Your task to perform on an android device: Clear the cart on target. Add "bose quietcomfort 35" to the cart on target, then select checkout. Image 0: 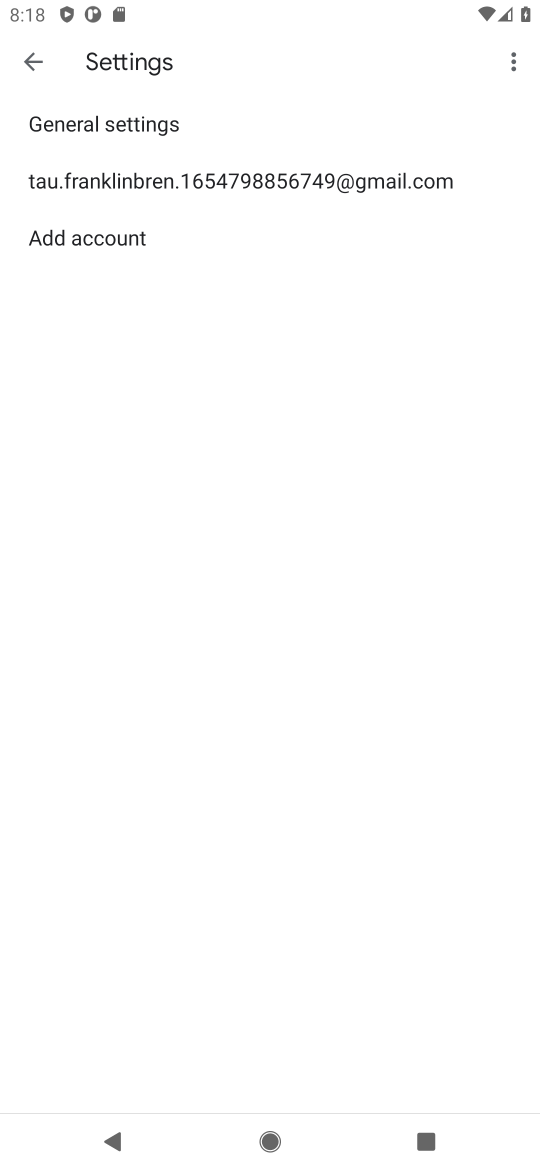
Step 0: press home button
Your task to perform on an android device: Clear the cart on target. Add "bose quietcomfort 35" to the cart on target, then select checkout. Image 1: 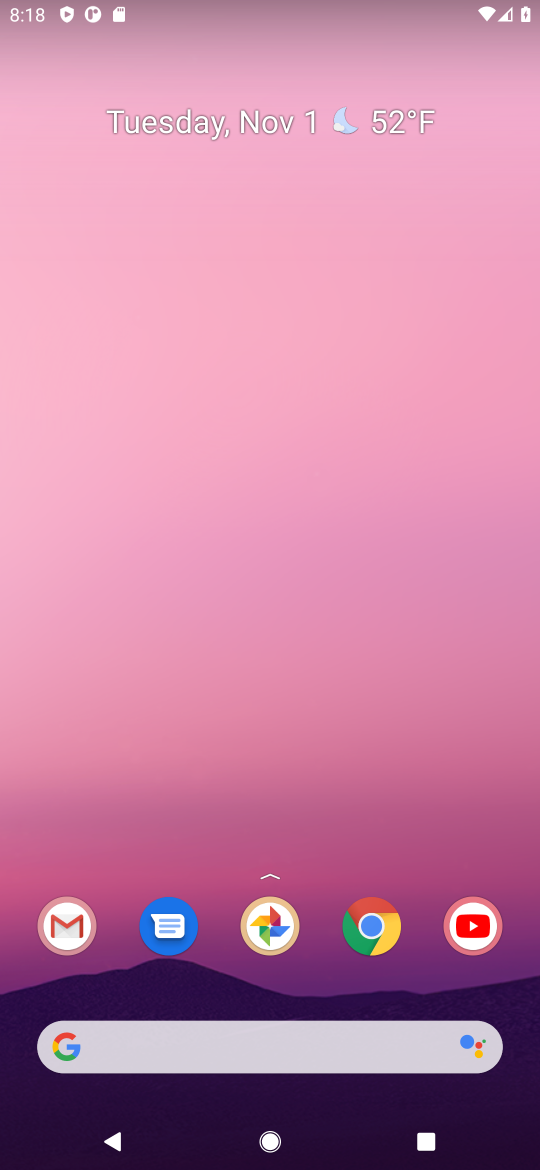
Step 1: click (377, 948)
Your task to perform on an android device: Clear the cart on target. Add "bose quietcomfort 35" to the cart on target, then select checkout. Image 2: 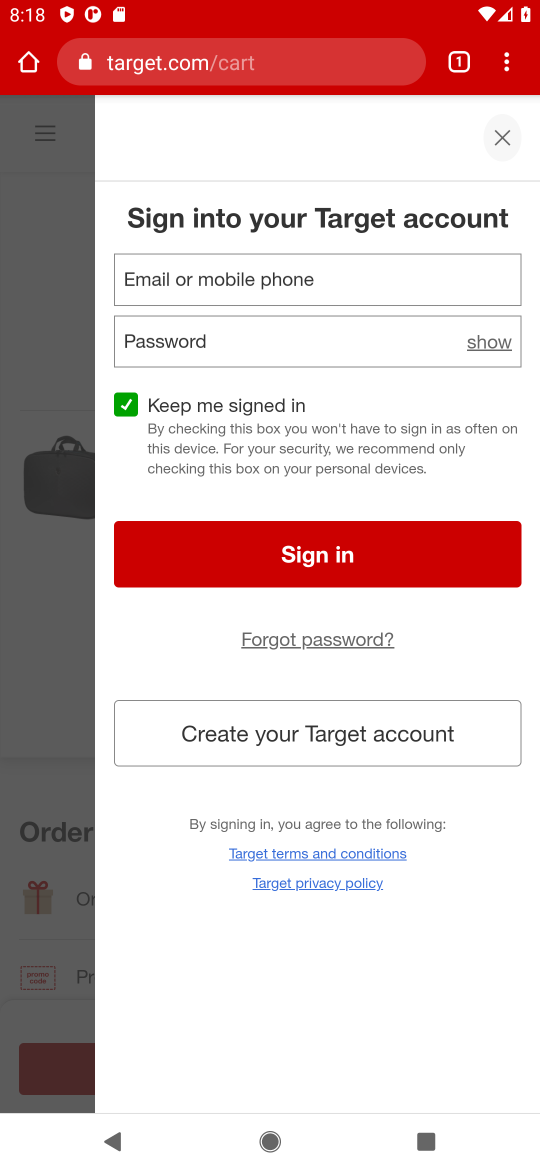
Step 2: click (107, 57)
Your task to perform on an android device: Clear the cart on target. Add "bose quietcomfort 35" to the cart on target, then select checkout. Image 3: 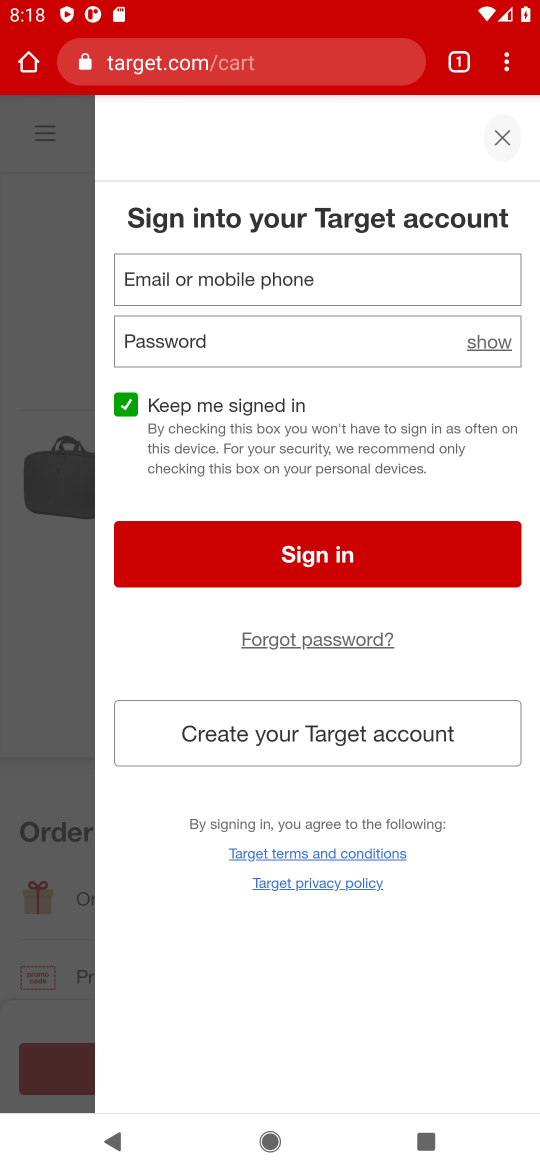
Step 3: click (496, 133)
Your task to perform on an android device: Clear the cart on target. Add "bose quietcomfort 35" to the cart on target, then select checkout. Image 4: 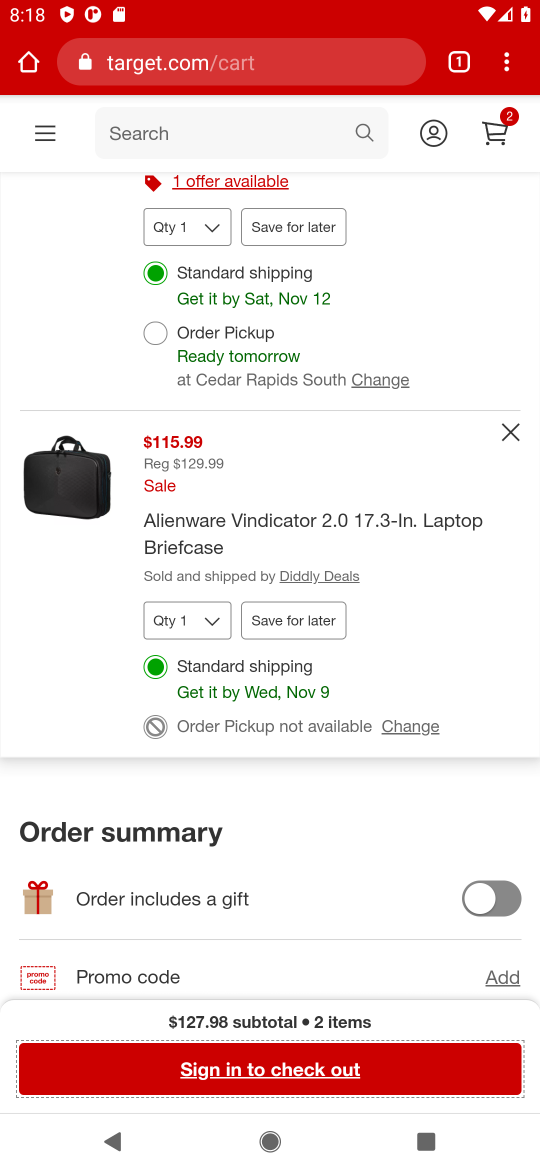
Step 4: click (182, 64)
Your task to perform on an android device: Clear the cart on target. Add "bose quietcomfort 35" to the cart on target, then select checkout. Image 5: 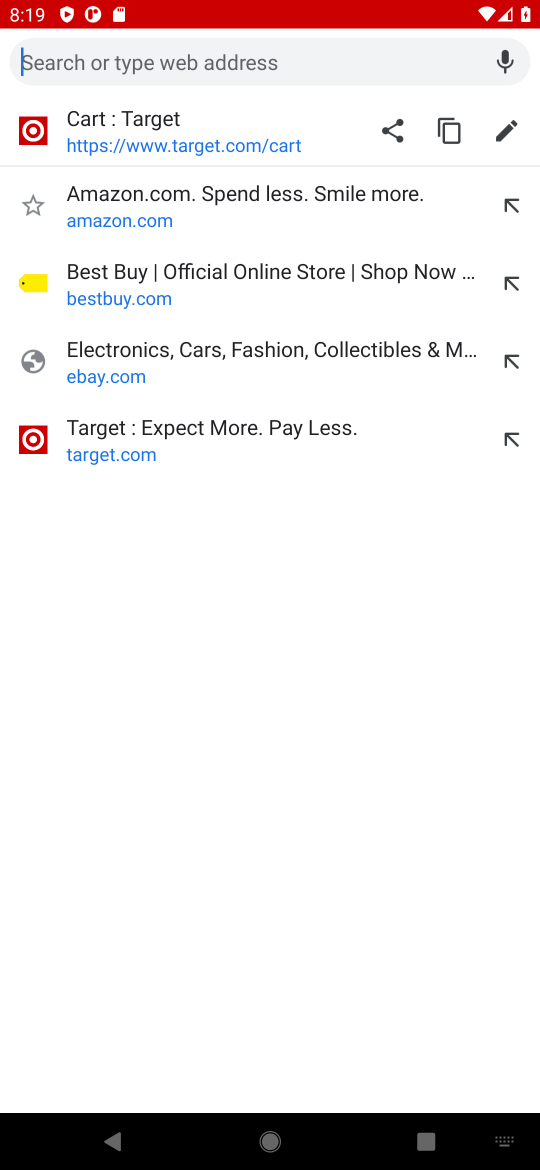
Step 5: click (139, 435)
Your task to perform on an android device: Clear the cart on target. Add "bose quietcomfort 35" to the cart on target, then select checkout. Image 6: 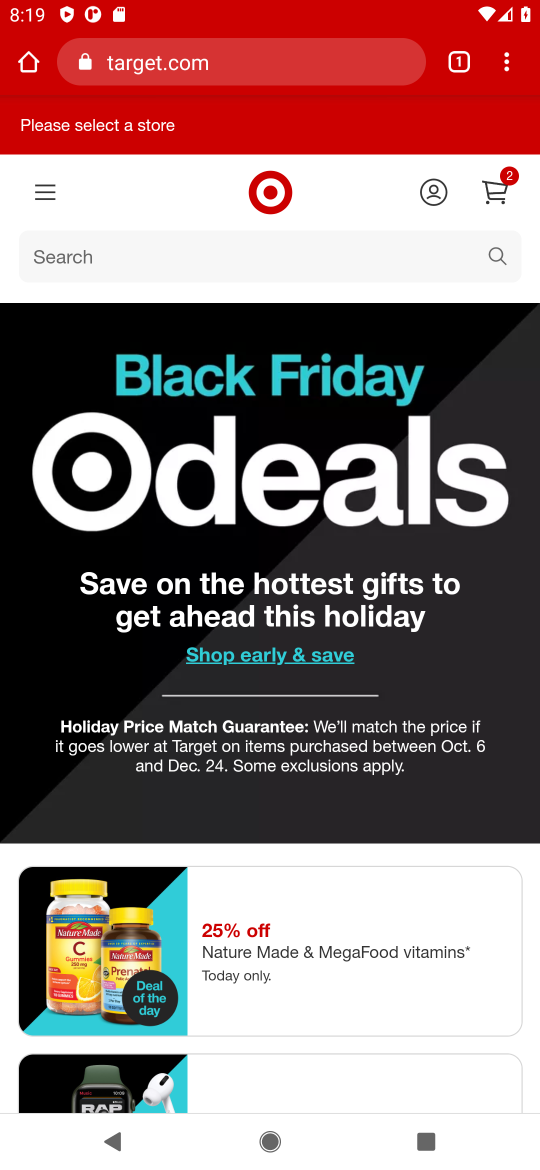
Step 6: click (170, 268)
Your task to perform on an android device: Clear the cart on target. Add "bose quietcomfort 35" to the cart on target, then select checkout. Image 7: 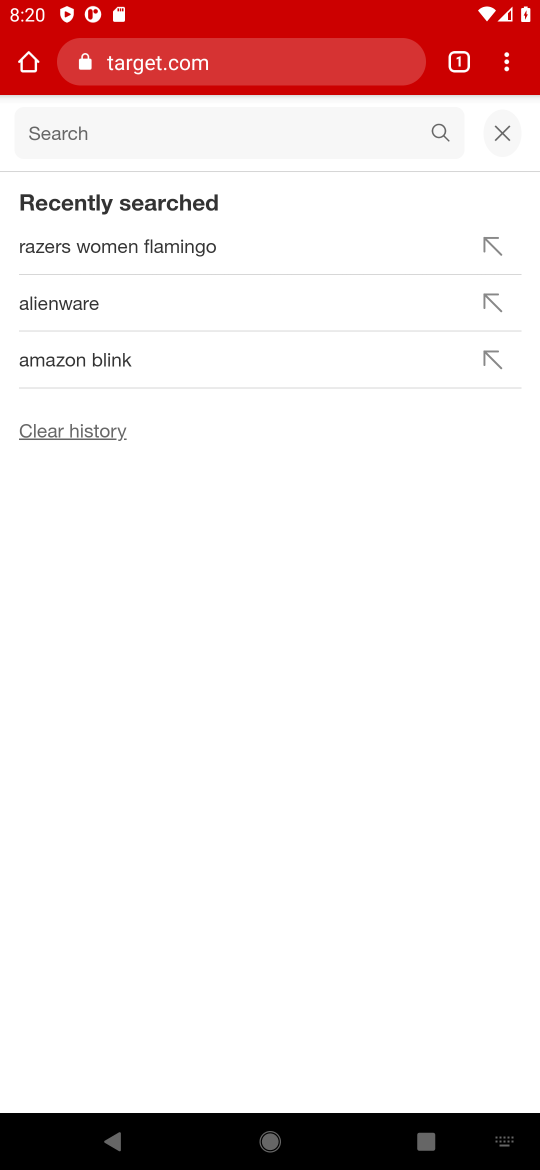
Step 7: type "bose equetcomfort 35"
Your task to perform on an android device: Clear the cart on target. Add "bose quietcomfort 35" to the cart on target, then select checkout. Image 8: 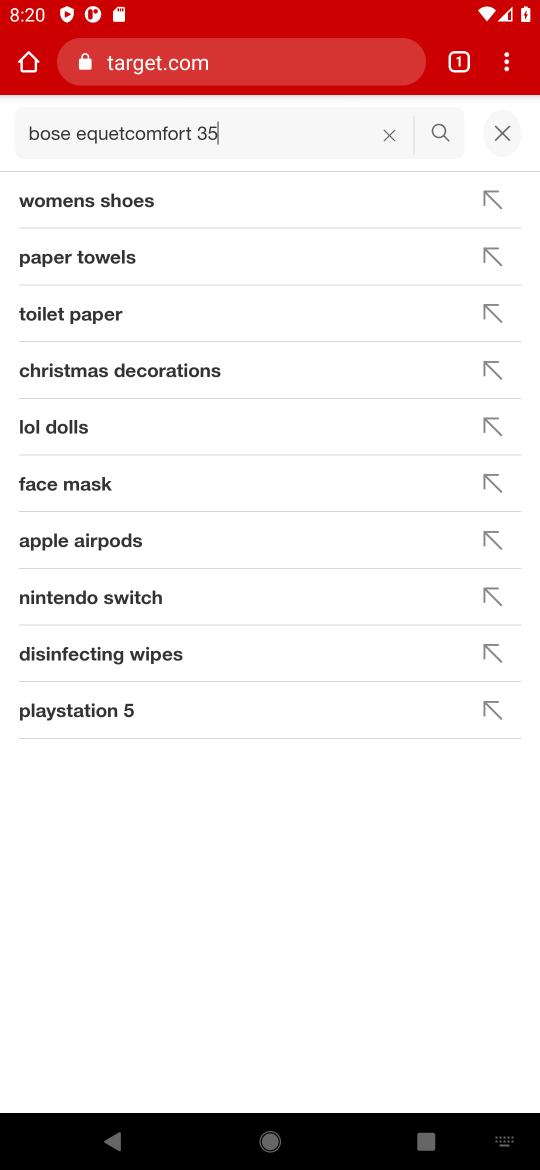
Step 8: type ""
Your task to perform on an android device: Clear the cart on target. Add "bose quietcomfort 35" to the cart on target, then select checkout. Image 9: 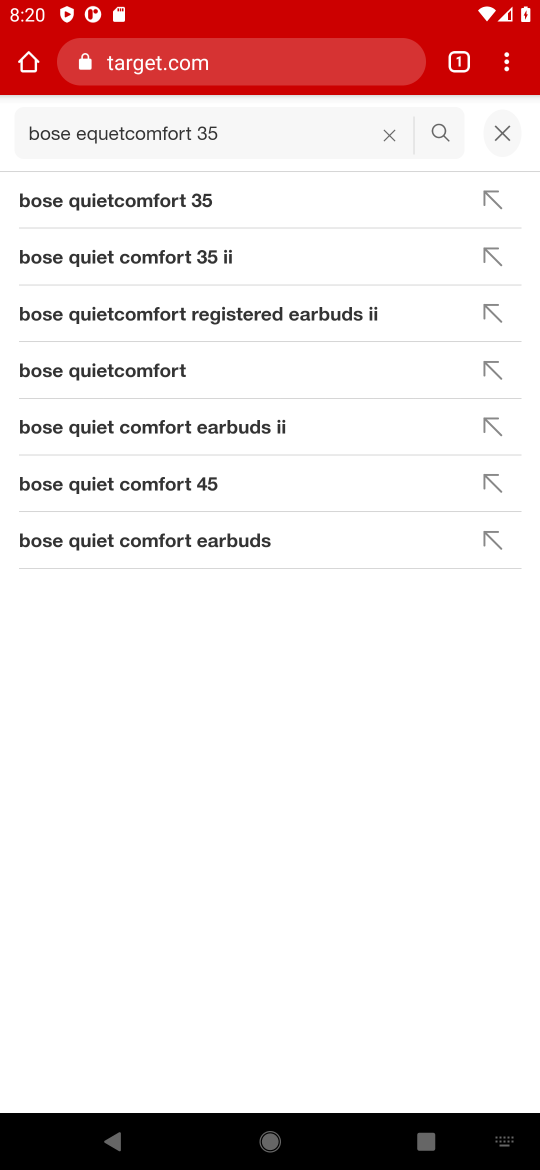
Step 9: click (105, 198)
Your task to perform on an android device: Clear the cart on target. Add "bose quietcomfort 35" to the cart on target, then select checkout. Image 10: 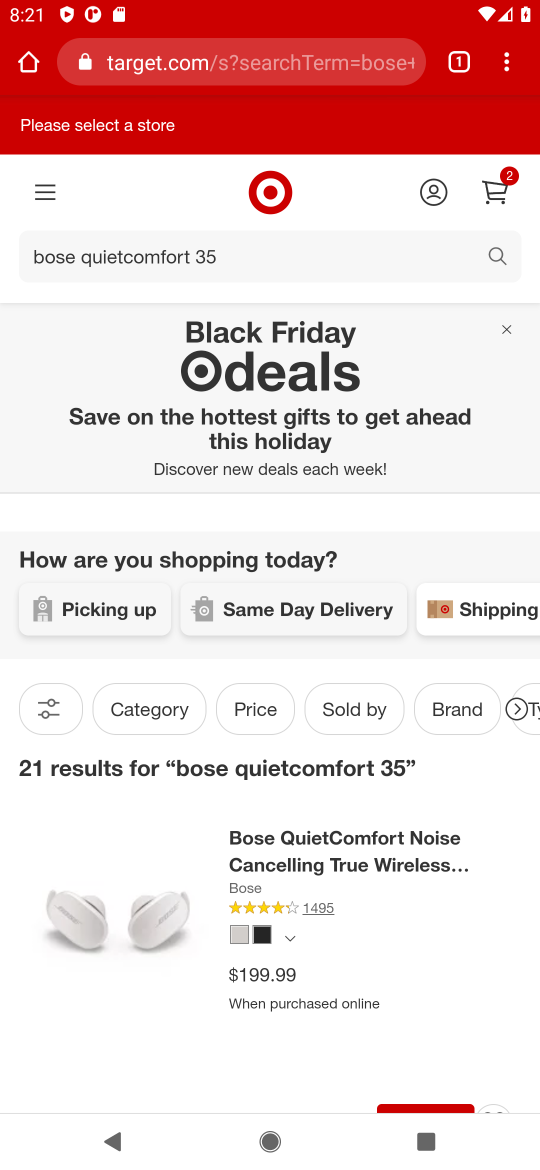
Step 10: click (502, 256)
Your task to perform on an android device: Clear the cart on target. Add "bose quietcomfort 35" to the cart on target, then select checkout. Image 11: 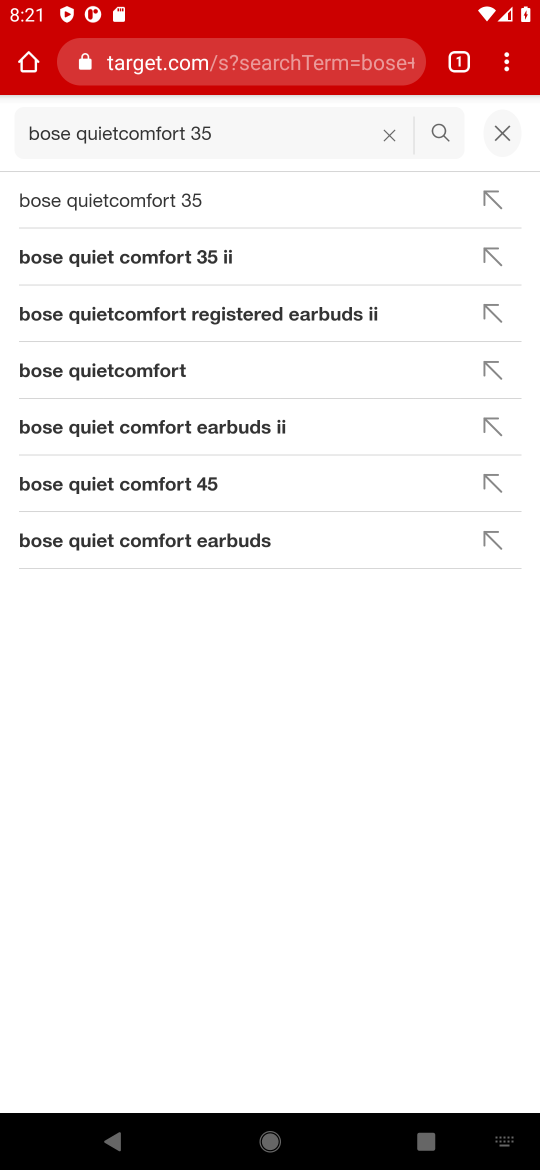
Step 11: click (129, 263)
Your task to perform on an android device: Clear the cart on target. Add "bose quietcomfort 35" to the cart on target, then select checkout. Image 12: 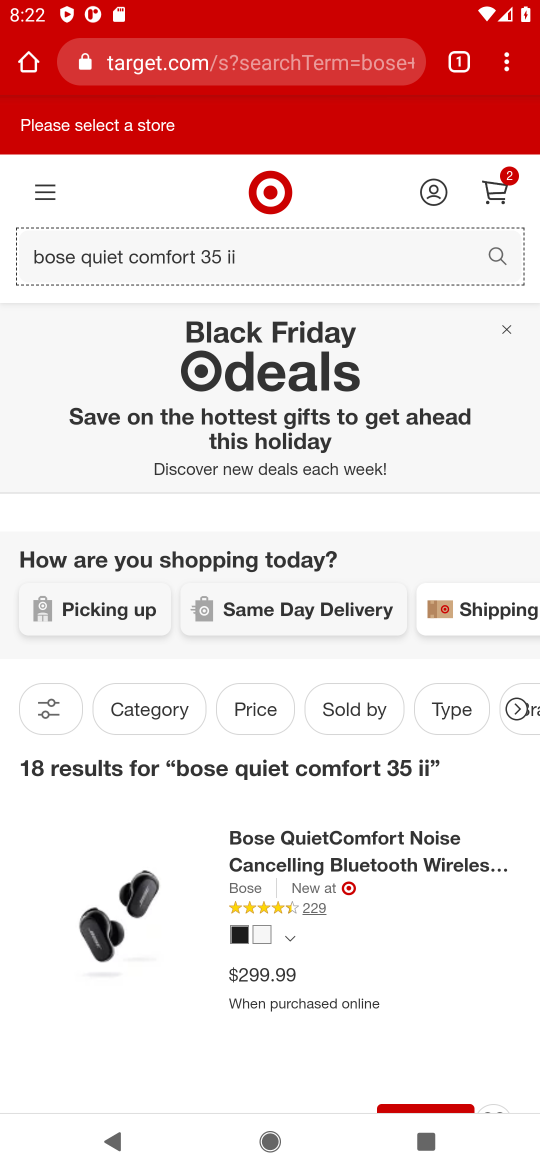
Step 12: drag from (288, 968) to (373, 332)
Your task to perform on an android device: Clear the cart on target. Add "bose quietcomfort 35" to the cart on target, then select checkout. Image 13: 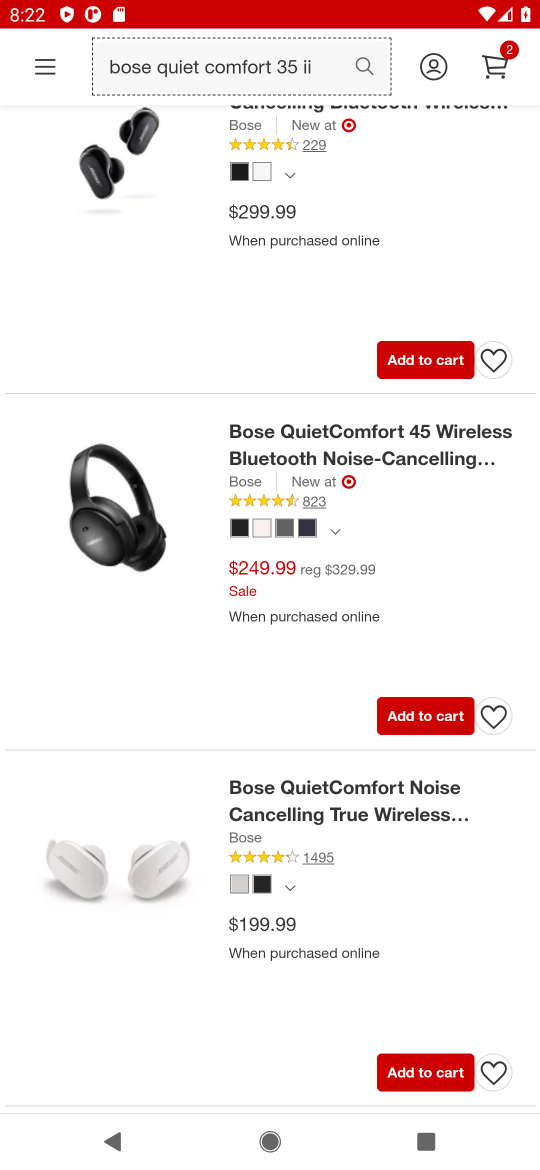
Step 13: click (433, 369)
Your task to perform on an android device: Clear the cart on target. Add "bose quietcomfort 35" to the cart on target, then select checkout. Image 14: 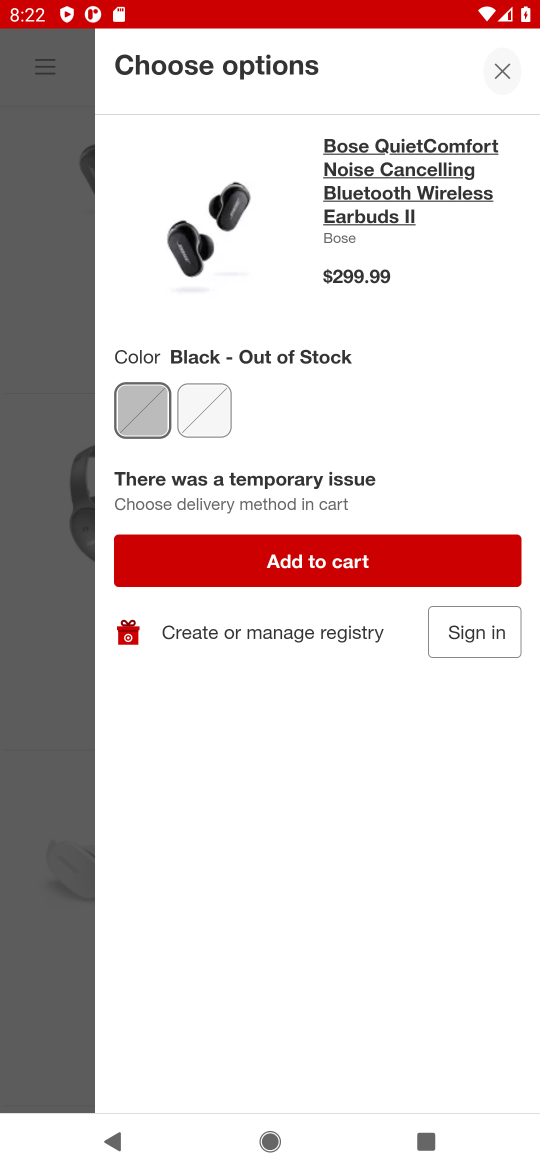
Step 14: click (285, 561)
Your task to perform on an android device: Clear the cart on target. Add "bose quietcomfort 35" to the cart on target, then select checkout. Image 15: 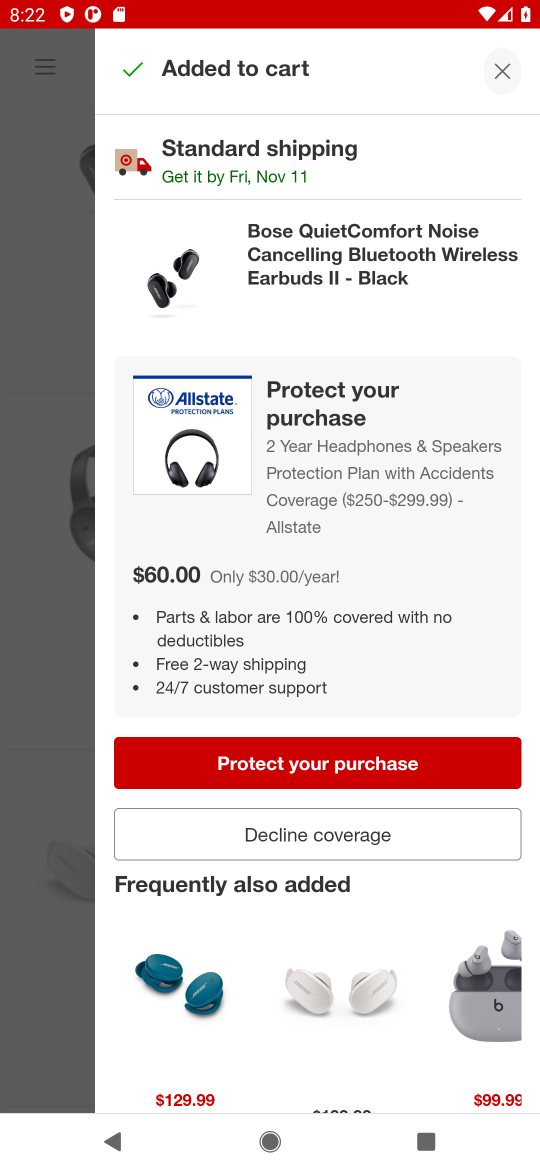
Step 15: click (288, 770)
Your task to perform on an android device: Clear the cart on target. Add "bose quietcomfort 35" to the cart on target, then select checkout. Image 16: 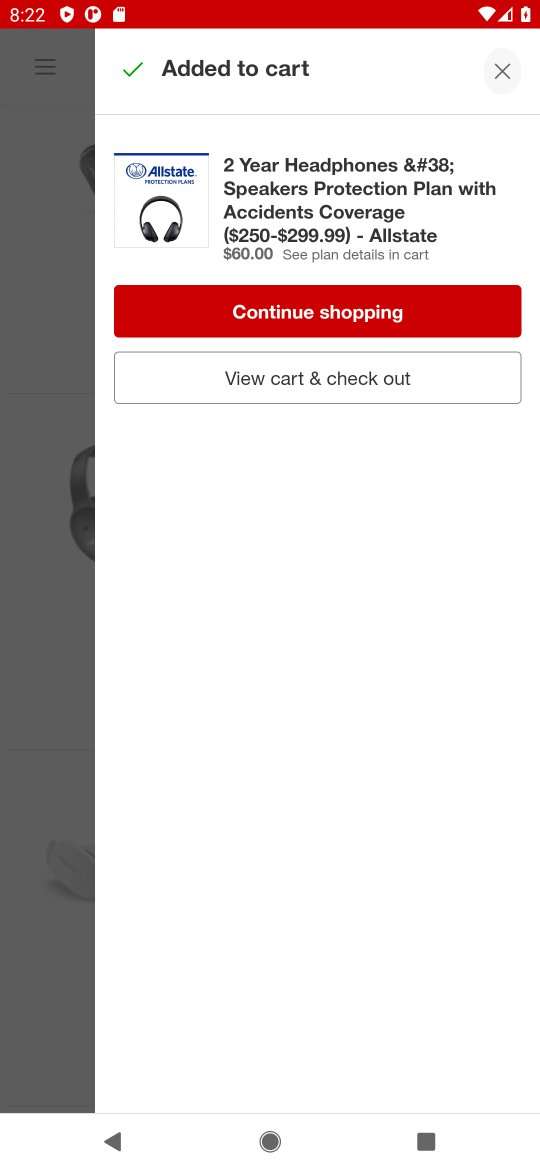
Step 16: click (237, 382)
Your task to perform on an android device: Clear the cart on target. Add "bose quietcomfort 35" to the cart on target, then select checkout. Image 17: 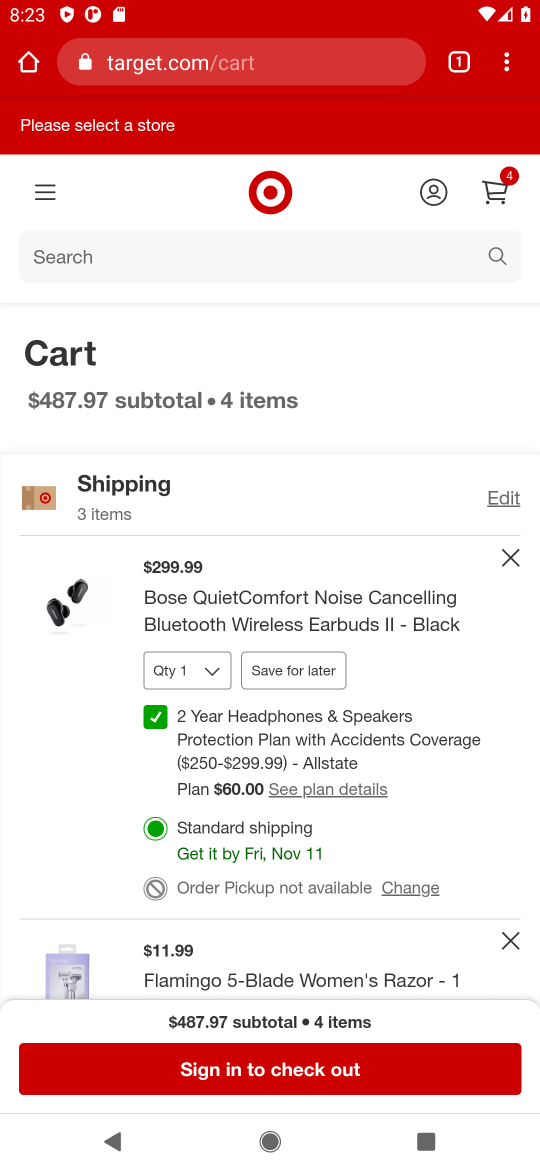
Step 17: click (140, 1077)
Your task to perform on an android device: Clear the cart on target. Add "bose quietcomfort 35" to the cart on target, then select checkout. Image 18: 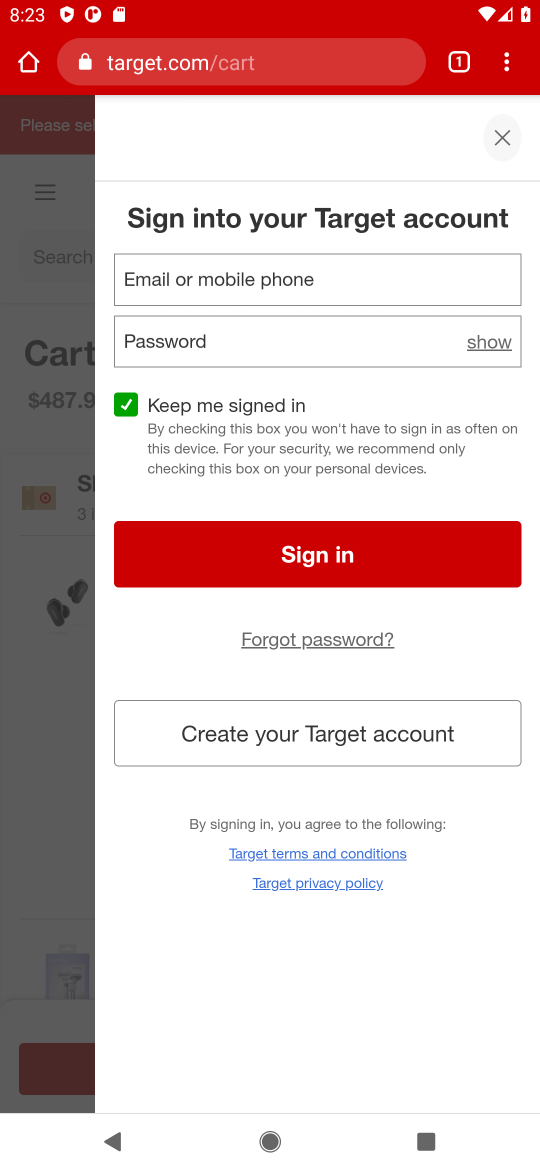
Step 18: task complete